Your task to perform on an android device: Open Yahoo.com Image 0: 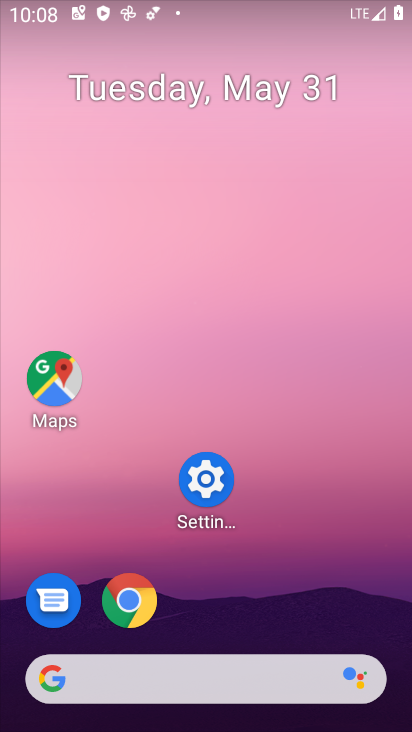
Step 0: press home button
Your task to perform on an android device: Open Yahoo.com Image 1: 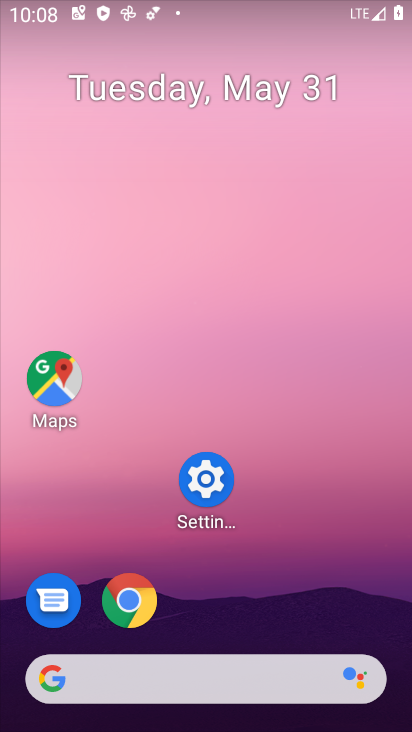
Step 1: drag from (209, 601) to (184, 297)
Your task to perform on an android device: Open Yahoo.com Image 2: 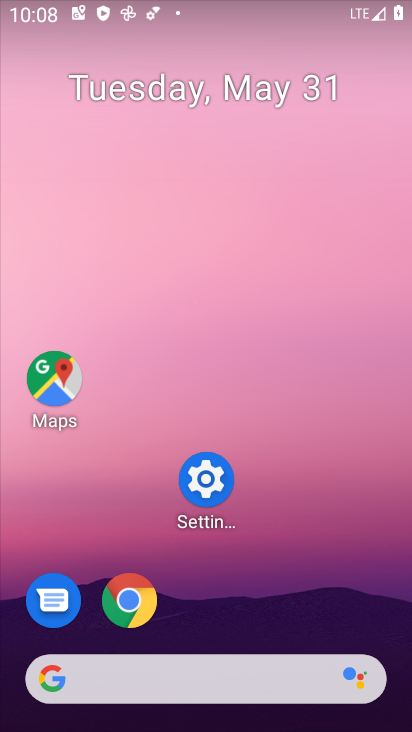
Step 2: click (136, 607)
Your task to perform on an android device: Open Yahoo.com Image 3: 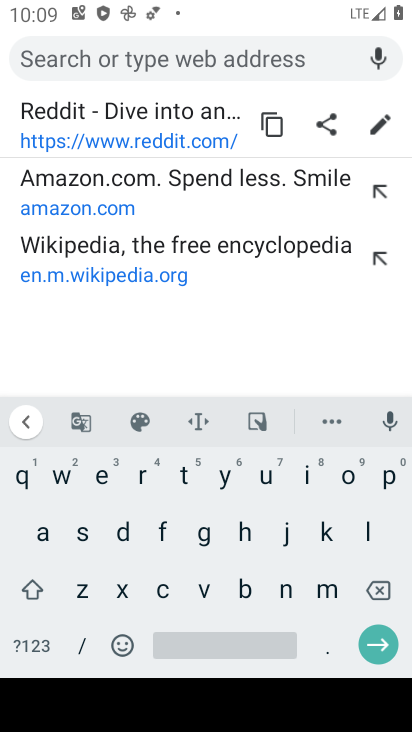
Step 3: click (227, 475)
Your task to perform on an android device: Open Yahoo.com Image 4: 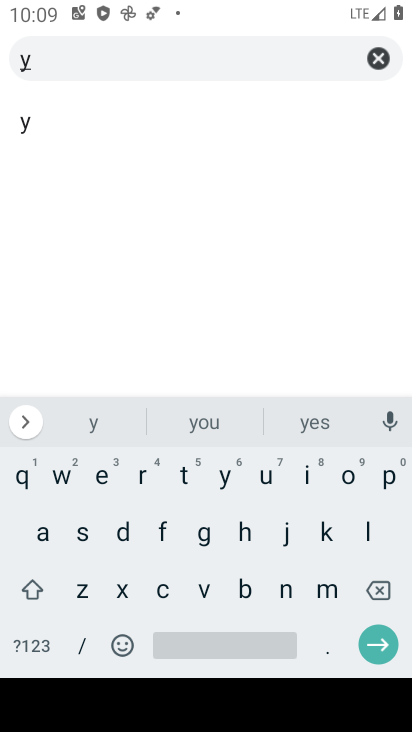
Step 4: click (33, 525)
Your task to perform on an android device: Open Yahoo.com Image 5: 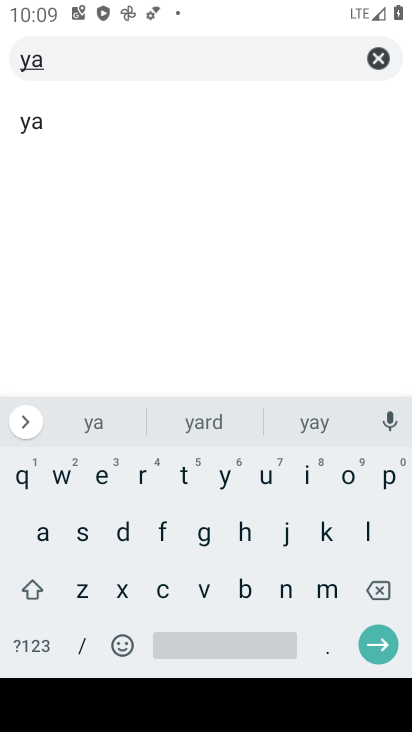
Step 5: click (250, 522)
Your task to perform on an android device: Open Yahoo.com Image 6: 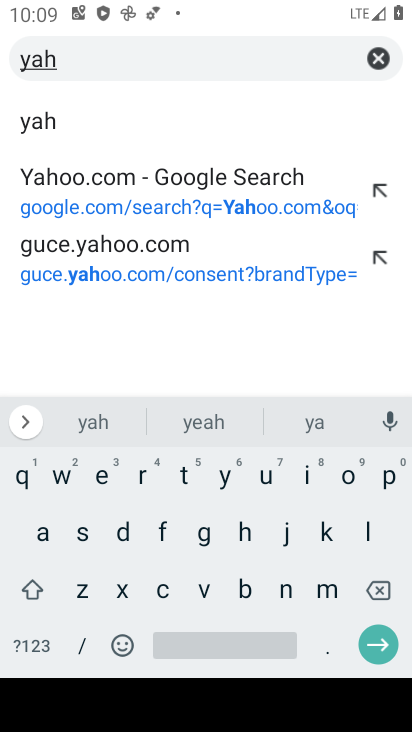
Step 6: click (115, 195)
Your task to perform on an android device: Open Yahoo.com Image 7: 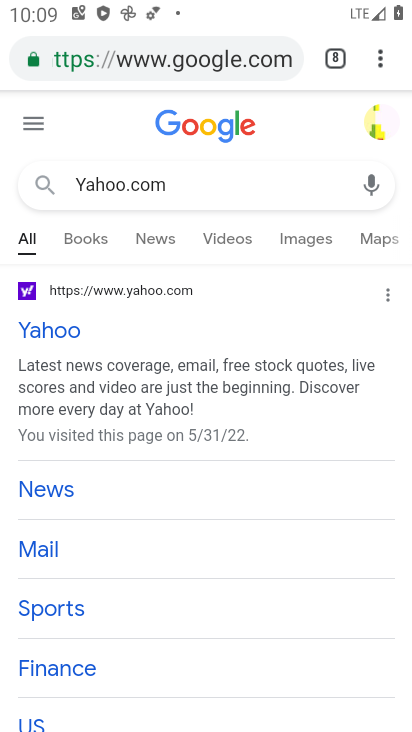
Step 7: click (47, 332)
Your task to perform on an android device: Open Yahoo.com Image 8: 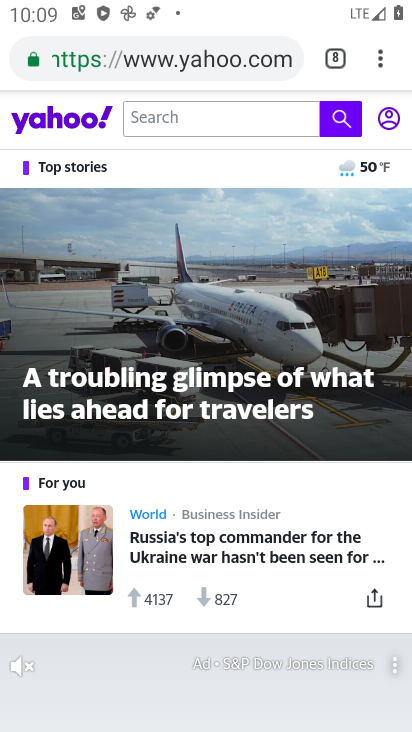
Step 8: task complete